Your task to perform on an android device: find which apps use the phone's location Image 0: 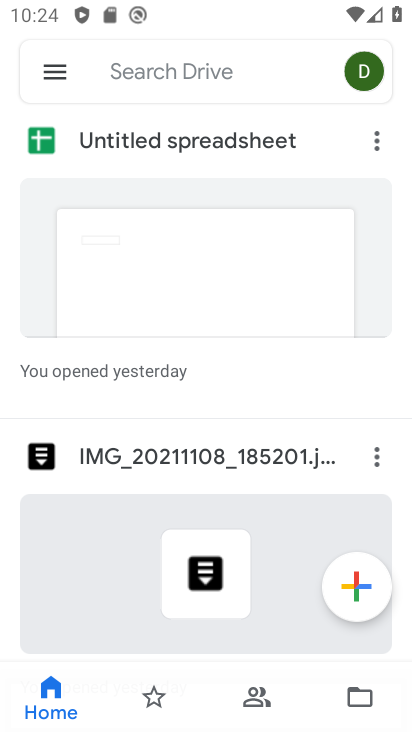
Step 0: press back button
Your task to perform on an android device: find which apps use the phone's location Image 1: 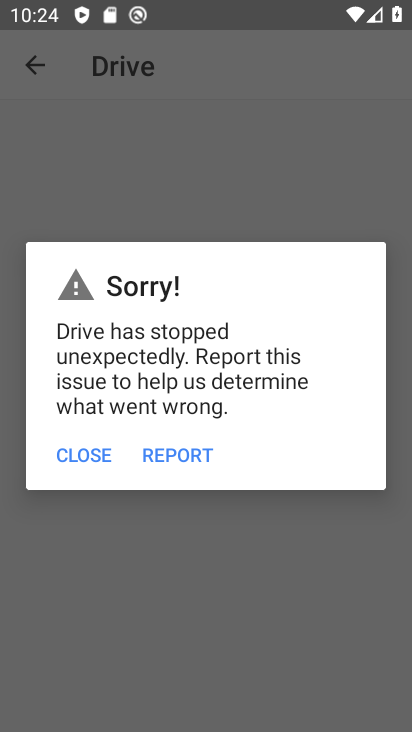
Step 1: click (85, 456)
Your task to perform on an android device: find which apps use the phone's location Image 2: 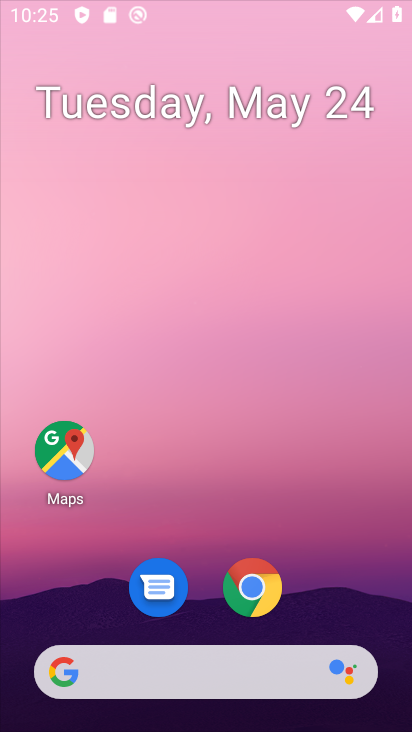
Step 2: press home button
Your task to perform on an android device: find which apps use the phone's location Image 3: 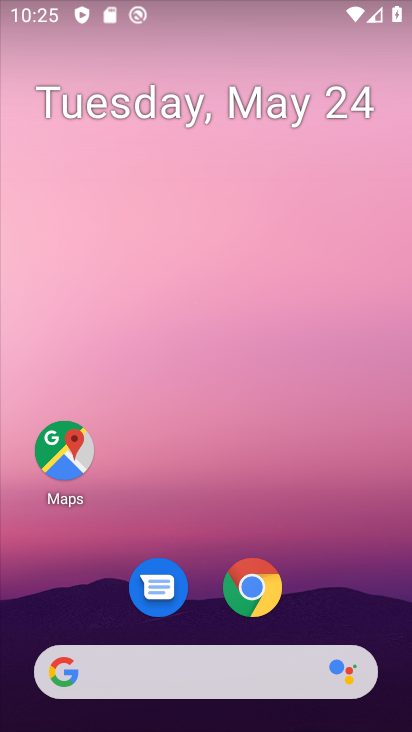
Step 3: drag from (334, 656) to (195, 3)
Your task to perform on an android device: find which apps use the phone's location Image 4: 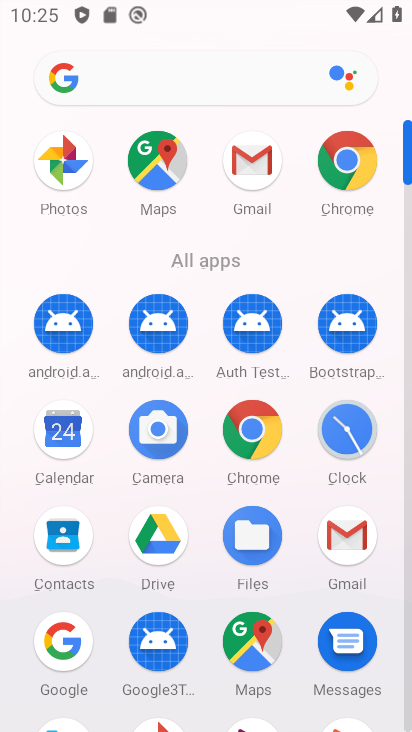
Step 4: drag from (301, 550) to (301, 122)
Your task to perform on an android device: find which apps use the phone's location Image 5: 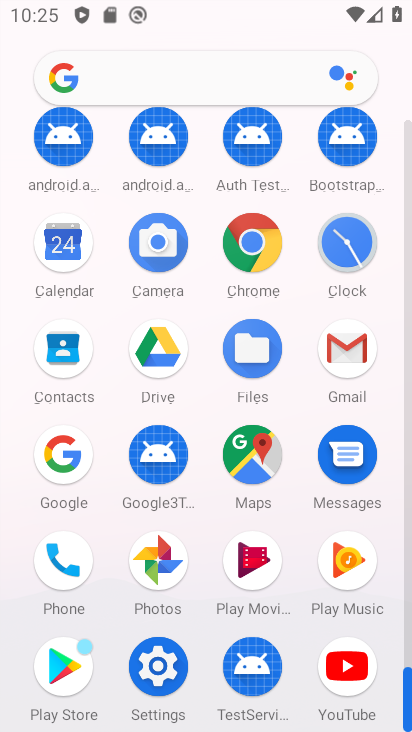
Step 5: click (145, 673)
Your task to perform on an android device: find which apps use the phone's location Image 6: 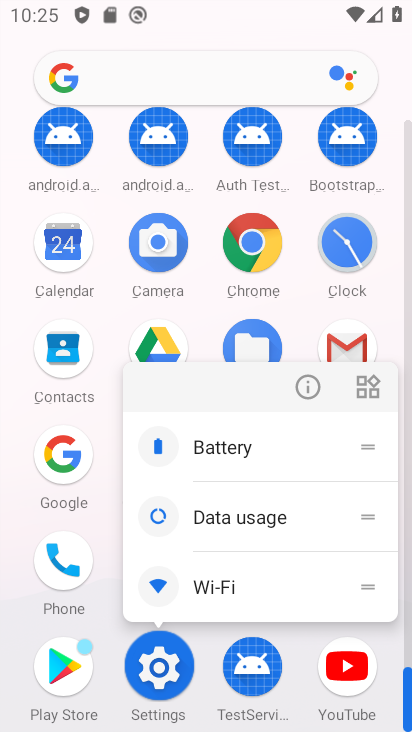
Step 6: click (149, 670)
Your task to perform on an android device: find which apps use the phone's location Image 7: 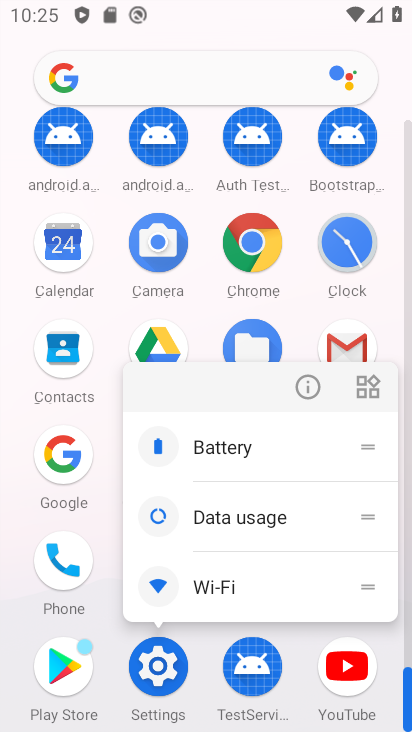
Step 7: click (149, 670)
Your task to perform on an android device: find which apps use the phone's location Image 8: 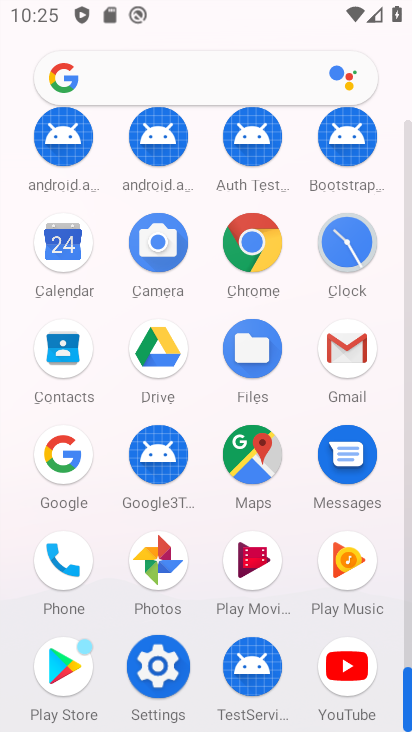
Step 8: click (172, 644)
Your task to perform on an android device: find which apps use the phone's location Image 9: 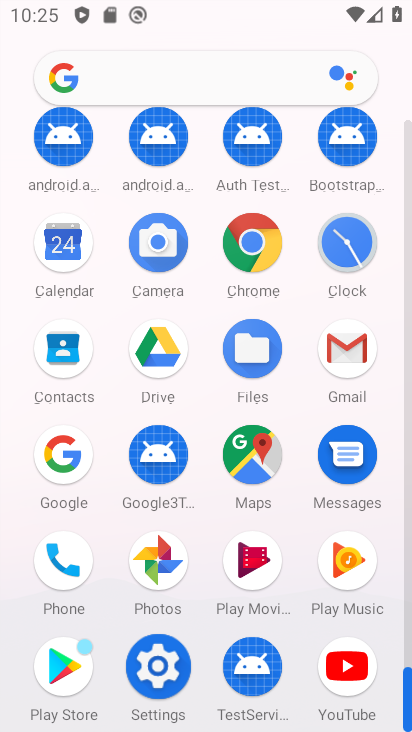
Step 9: click (172, 644)
Your task to perform on an android device: find which apps use the phone's location Image 10: 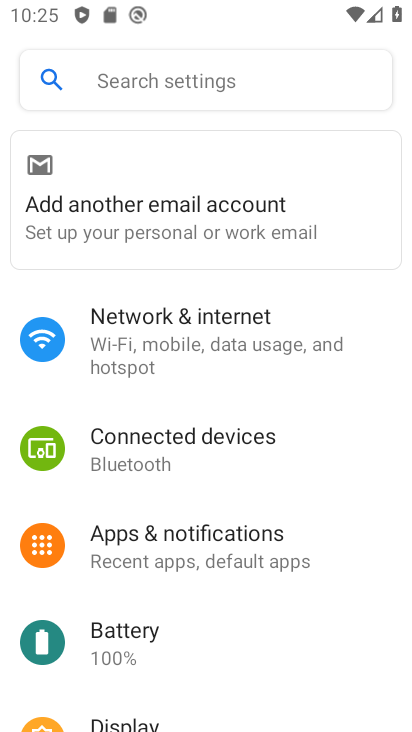
Step 10: press back button
Your task to perform on an android device: find which apps use the phone's location Image 11: 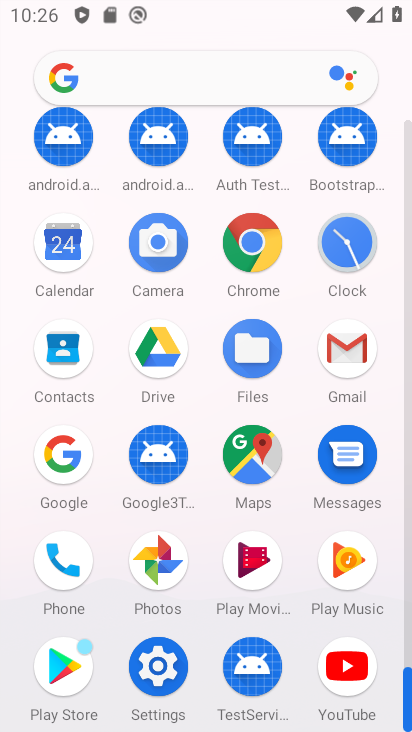
Step 11: click (143, 668)
Your task to perform on an android device: find which apps use the phone's location Image 12: 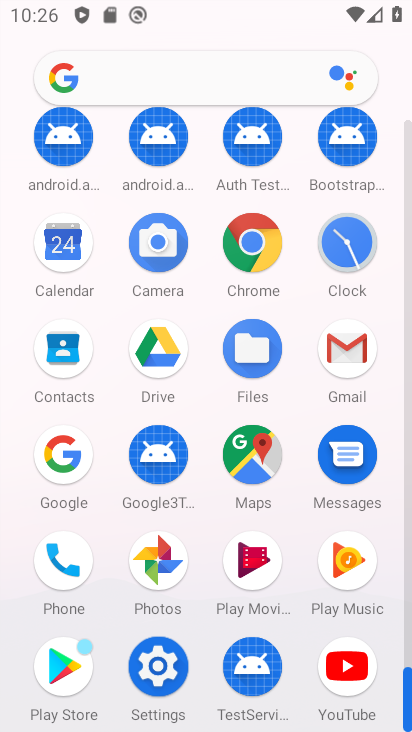
Step 12: click (149, 667)
Your task to perform on an android device: find which apps use the phone's location Image 13: 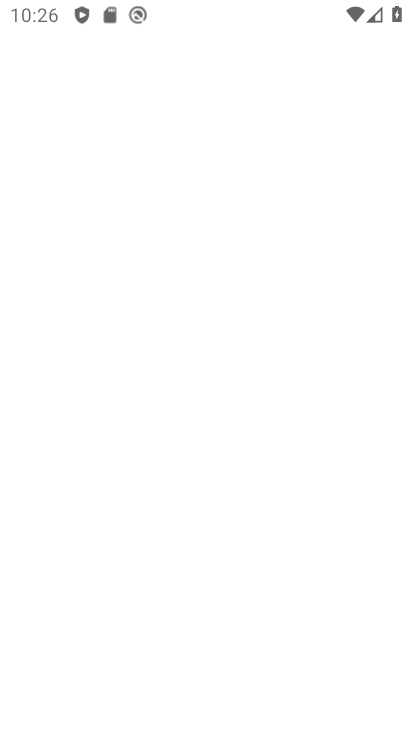
Step 13: click (151, 666)
Your task to perform on an android device: find which apps use the phone's location Image 14: 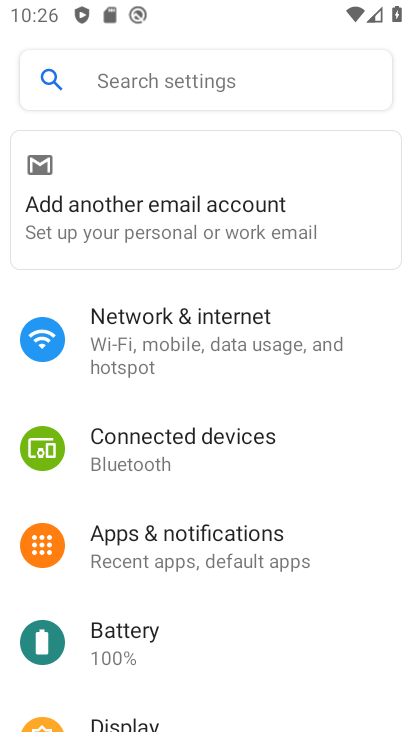
Step 14: drag from (220, 602) to (147, 229)
Your task to perform on an android device: find which apps use the phone's location Image 15: 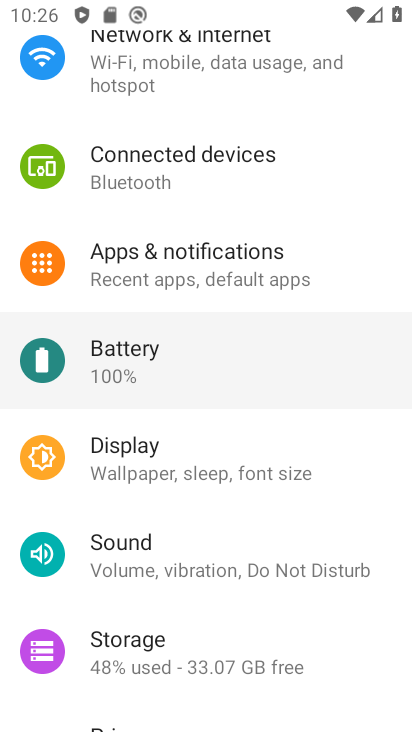
Step 15: drag from (208, 553) to (208, 93)
Your task to perform on an android device: find which apps use the phone's location Image 16: 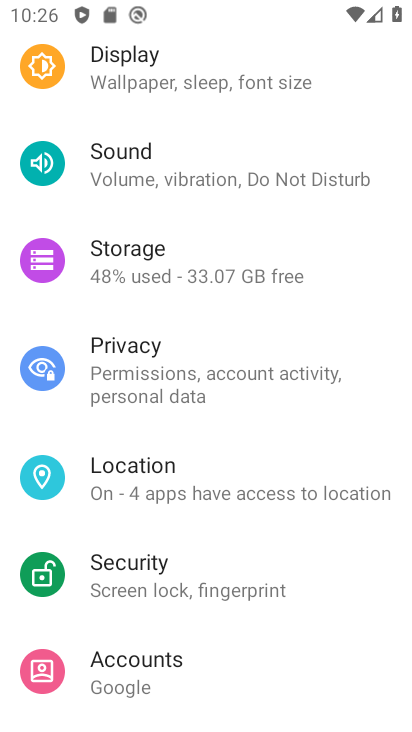
Step 16: drag from (202, 518) to (234, 123)
Your task to perform on an android device: find which apps use the phone's location Image 17: 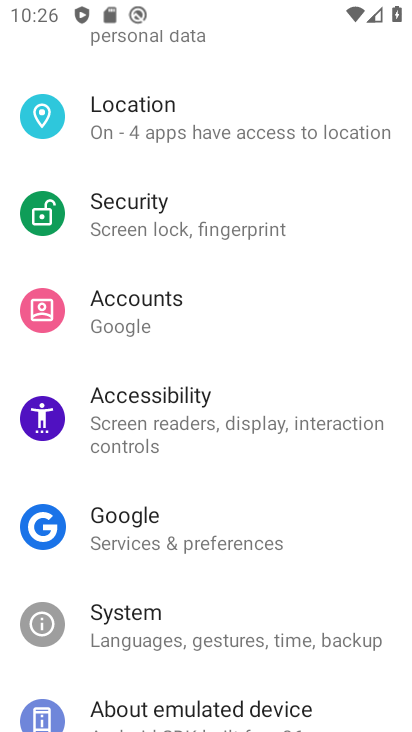
Step 17: drag from (193, 631) to (212, 217)
Your task to perform on an android device: find which apps use the phone's location Image 18: 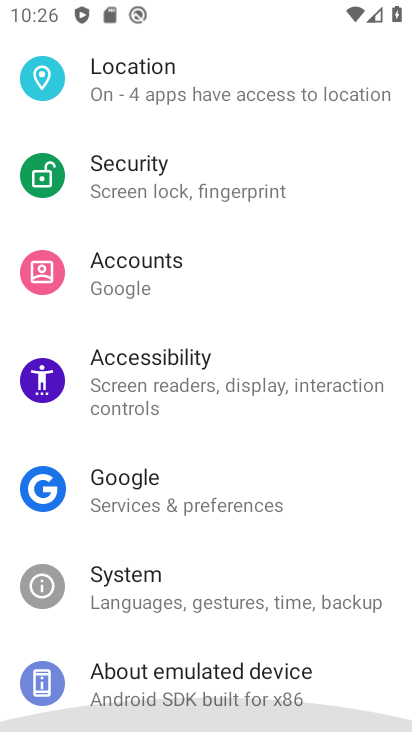
Step 18: drag from (264, 560) to (186, 212)
Your task to perform on an android device: find which apps use the phone's location Image 19: 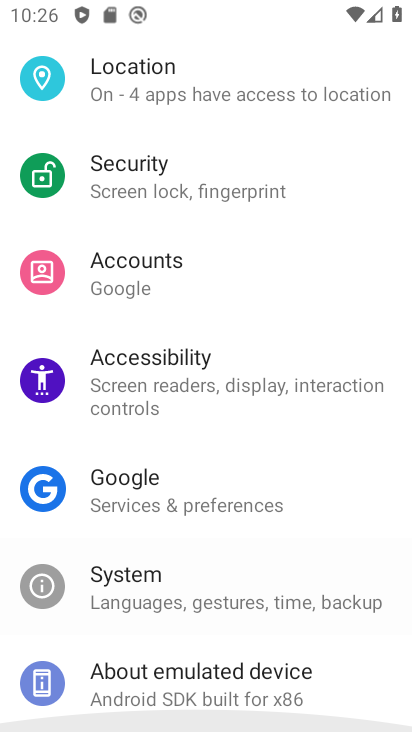
Step 19: drag from (193, 486) to (197, 142)
Your task to perform on an android device: find which apps use the phone's location Image 20: 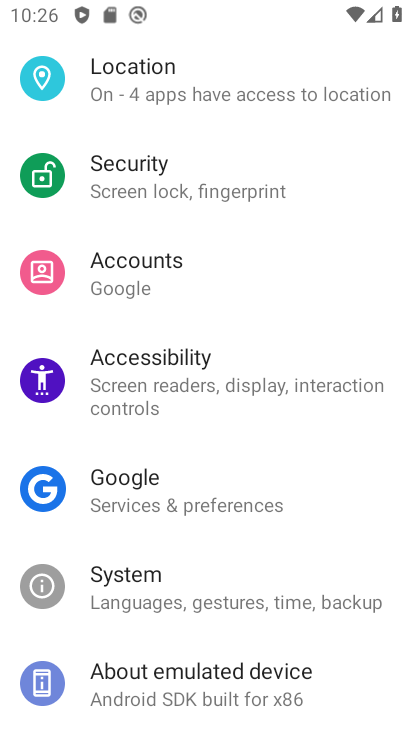
Step 20: click (134, 86)
Your task to perform on an android device: find which apps use the phone's location Image 21: 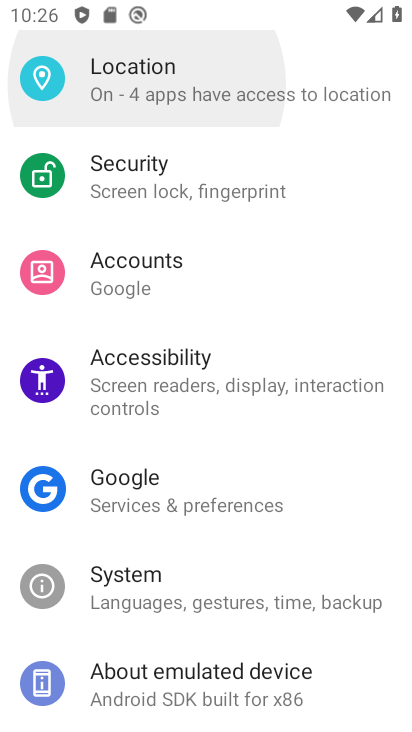
Step 21: click (134, 86)
Your task to perform on an android device: find which apps use the phone's location Image 22: 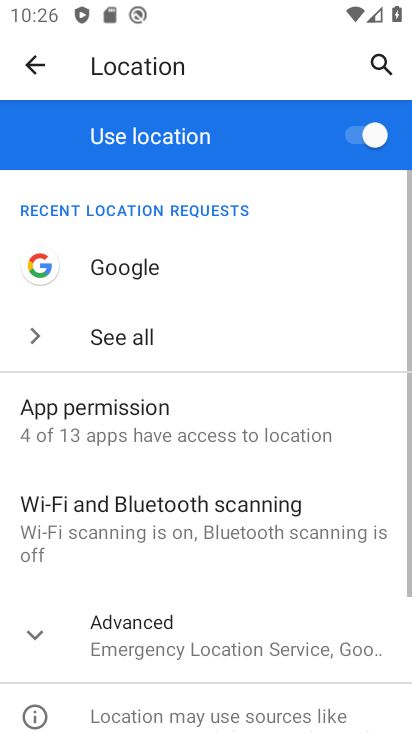
Step 22: drag from (187, 535) to (184, 204)
Your task to perform on an android device: find which apps use the phone's location Image 23: 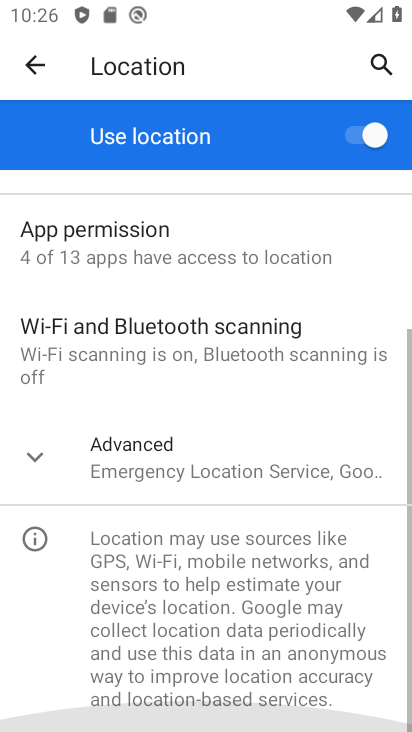
Step 23: drag from (212, 475) to (209, 199)
Your task to perform on an android device: find which apps use the phone's location Image 24: 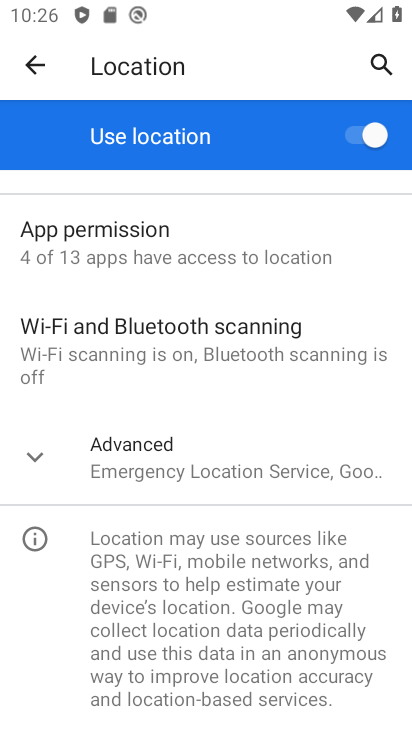
Step 24: click (101, 216)
Your task to perform on an android device: find which apps use the phone's location Image 25: 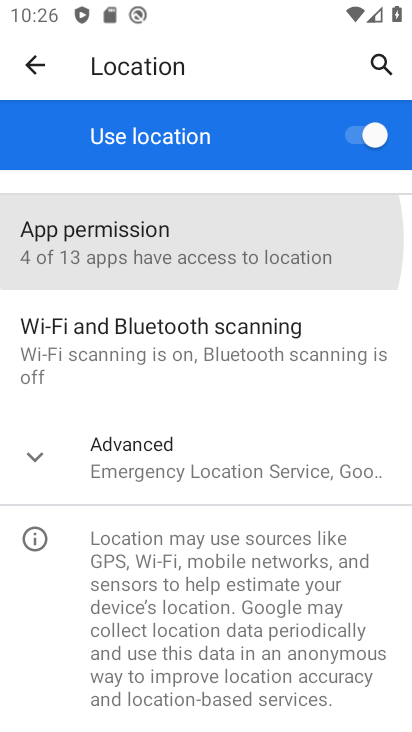
Step 25: click (103, 229)
Your task to perform on an android device: find which apps use the phone's location Image 26: 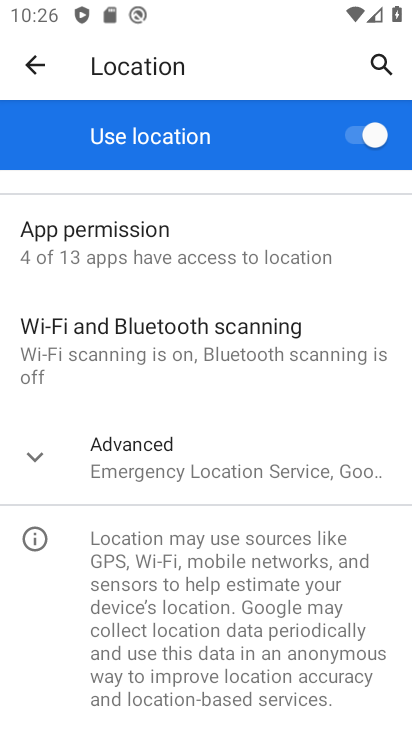
Step 26: click (112, 234)
Your task to perform on an android device: find which apps use the phone's location Image 27: 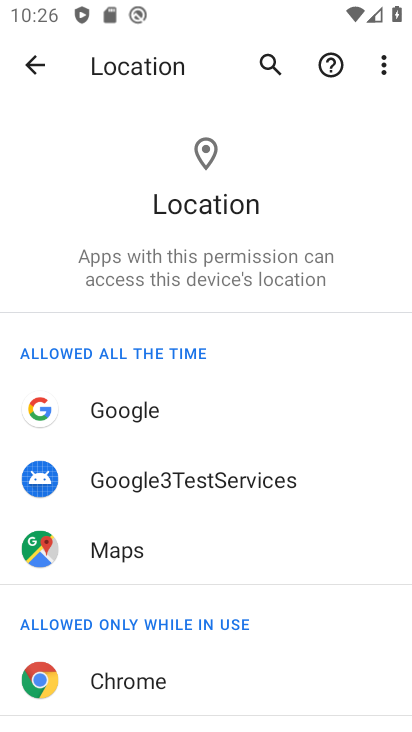
Step 27: task complete